Your task to perform on an android device: What's on my calendar today? Image 0: 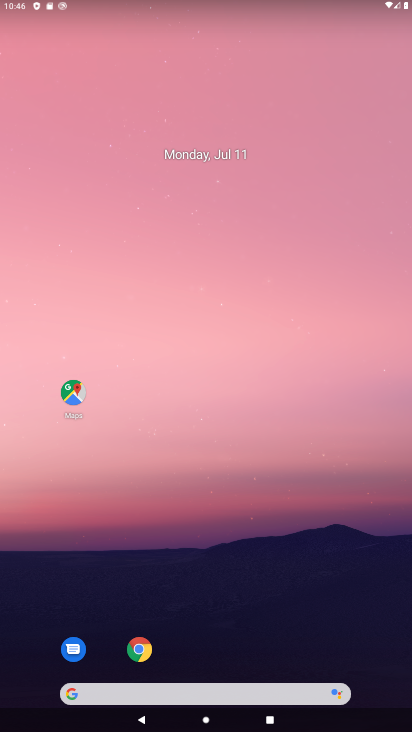
Step 0: drag from (235, 704) to (138, 120)
Your task to perform on an android device: What's on my calendar today? Image 1: 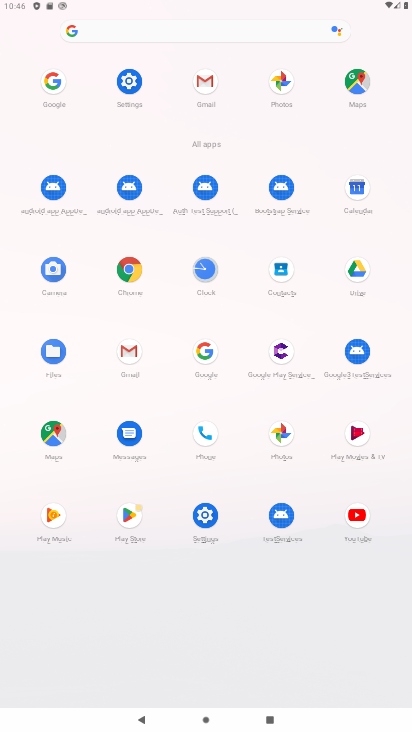
Step 1: click (358, 192)
Your task to perform on an android device: What's on my calendar today? Image 2: 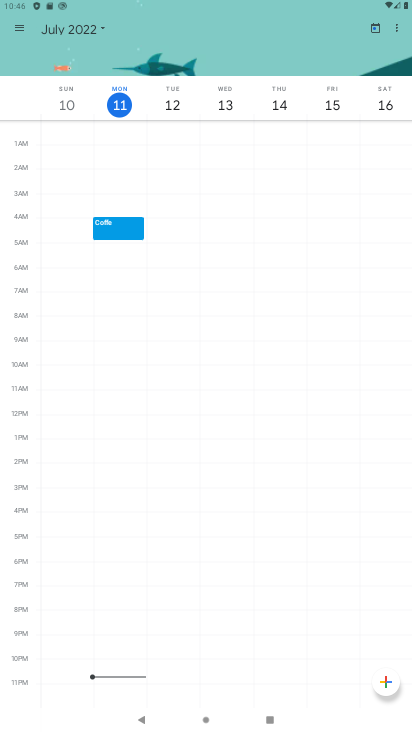
Step 2: click (98, 29)
Your task to perform on an android device: What's on my calendar today? Image 3: 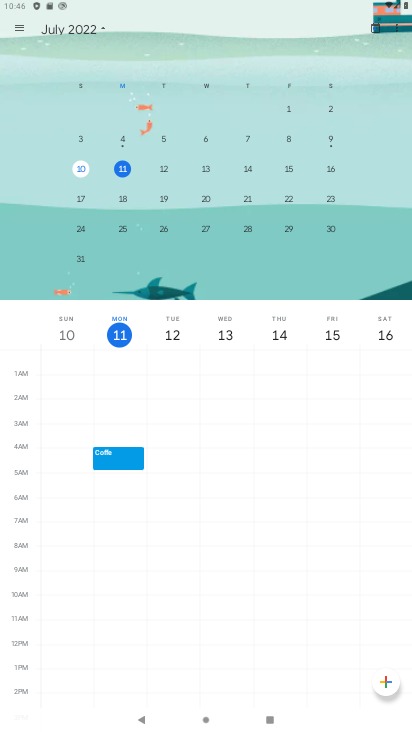
Step 3: click (374, 27)
Your task to perform on an android device: What's on my calendar today? Image 4: 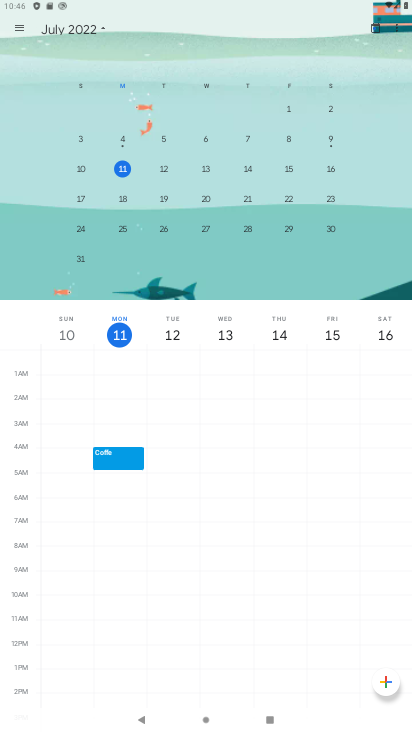
Step 4: click (20, 30)
Your task to perform on an android device: What's on my calendar today? Image 5: 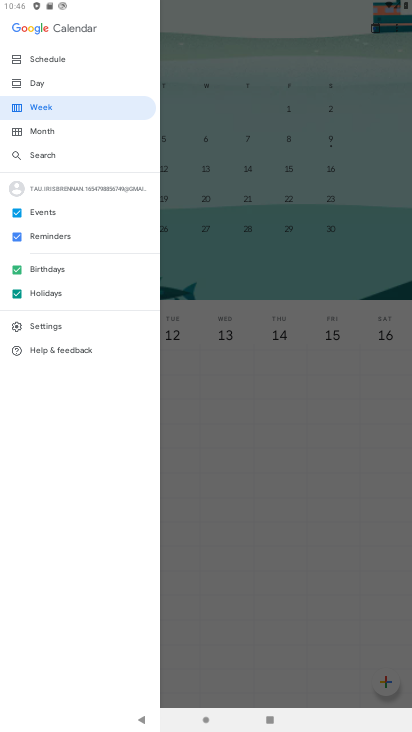
Step 5: click (23, 76)
Your task to perform on an android device: What's on my calendar today? Image 6: 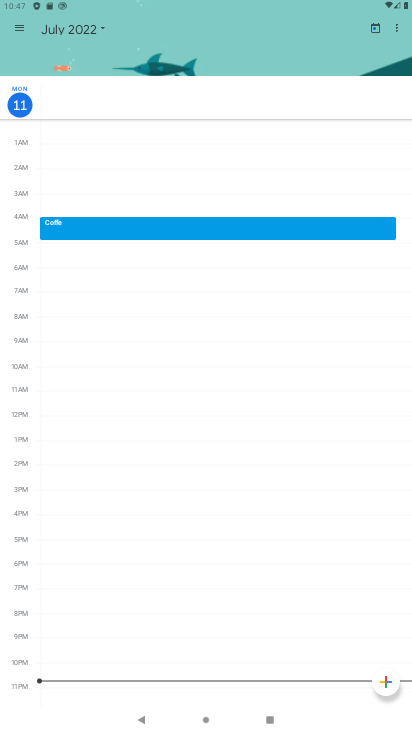
Step 6: task complete